Your task to perform on an android device: turn off sleep mode Image 0: 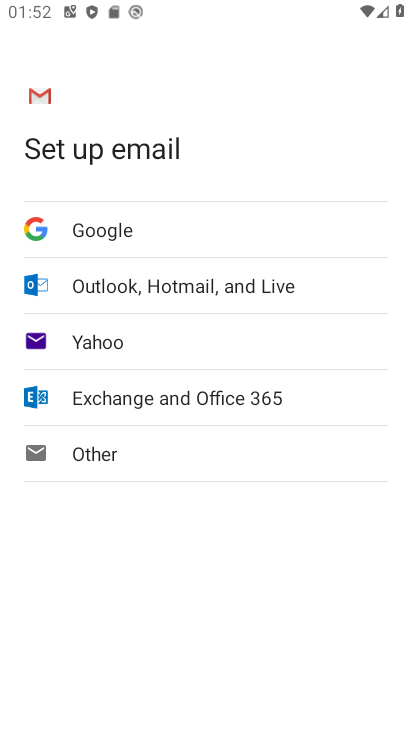
Step 0: press home button
Your task to perform on an android device: turn off sleep mode Image 1: 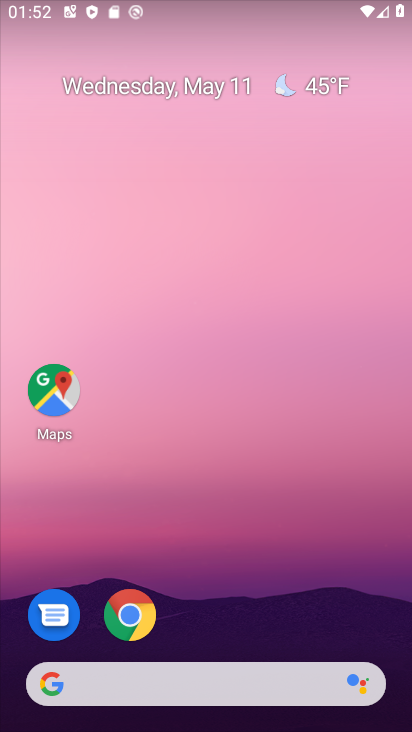
Step 1: drag from (335, 622) to (322, 152)
Your task to perform on an android device: turn off sleep mode Image 2: 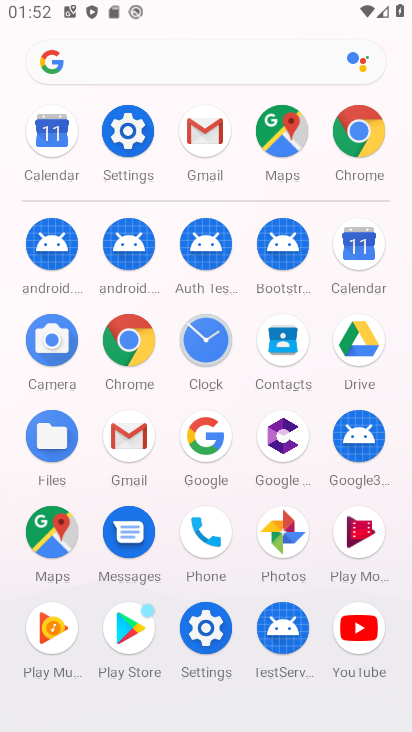
Step 2: click (100, 131)
Your task to perform on an android device: turn off sleep mode Image 3: 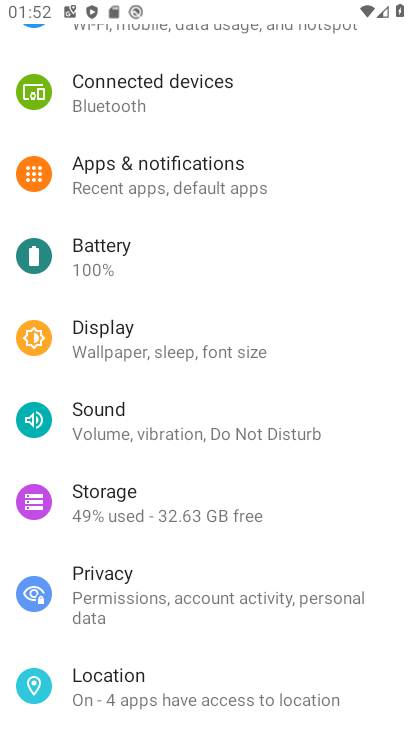
Step 3: drag from (232, 127) to (250, 516)
Your task to perform on an android device: turn off sleep mode Image 4: 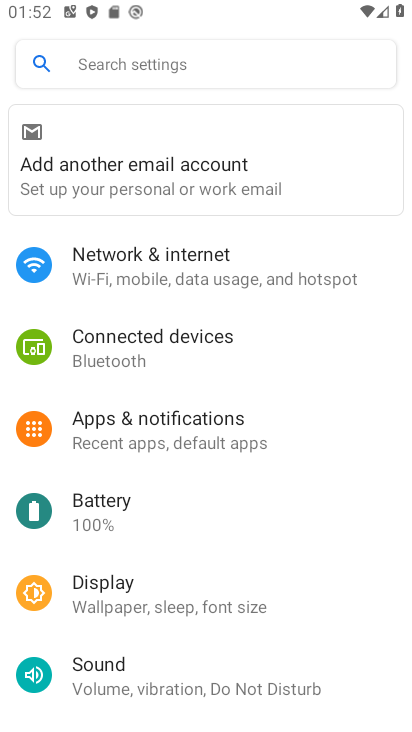
Step 4: click (202, 64)
Your task to perform on an android device: turn off sleep mode Image 5: 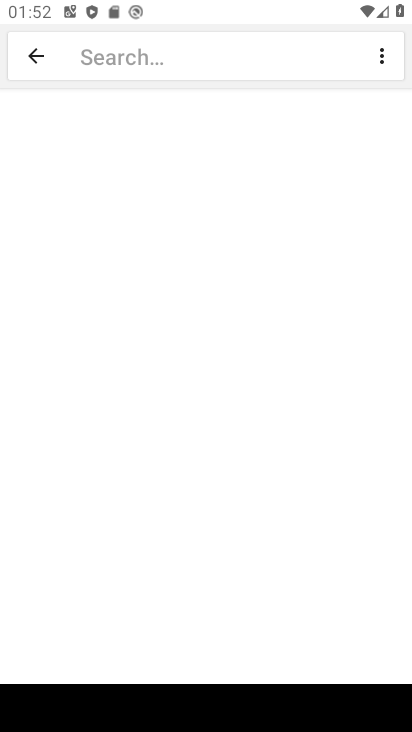
Step 5: type "sleep mode"
Your task to perform on an android device: turn off sleep mode Image 6: 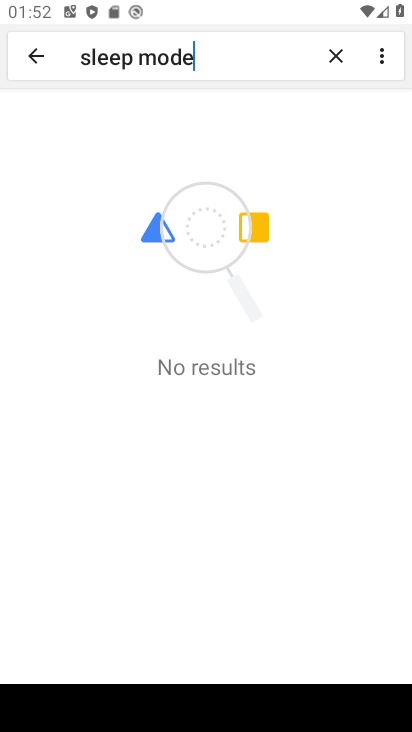
Step 6: task complete